Your task to perform on an android device: Search for hotels in Boston Image 0: 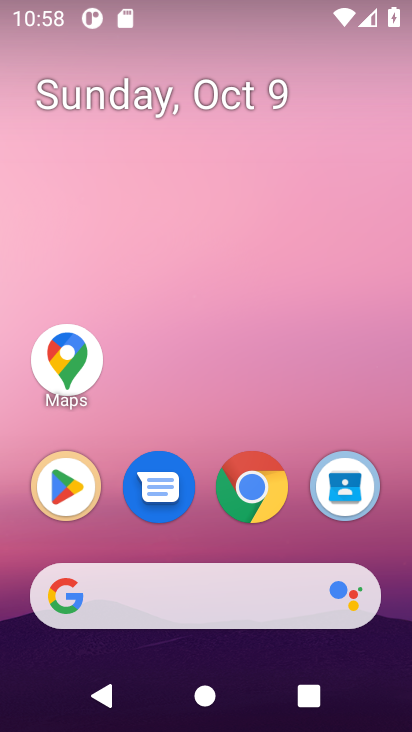
Step 0: click (270, 496)
Your task to perform on an android device: Search for hotels in Boston Image 1: 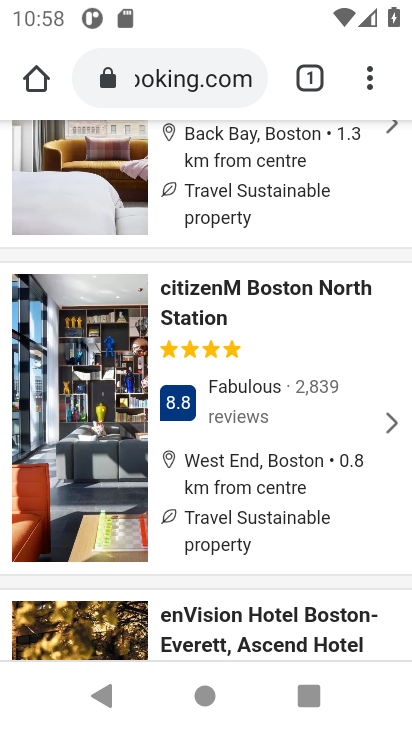
Step 1: click (204, 64)
Your task to perform on an android device: Search for hotels in Boston Image 2: 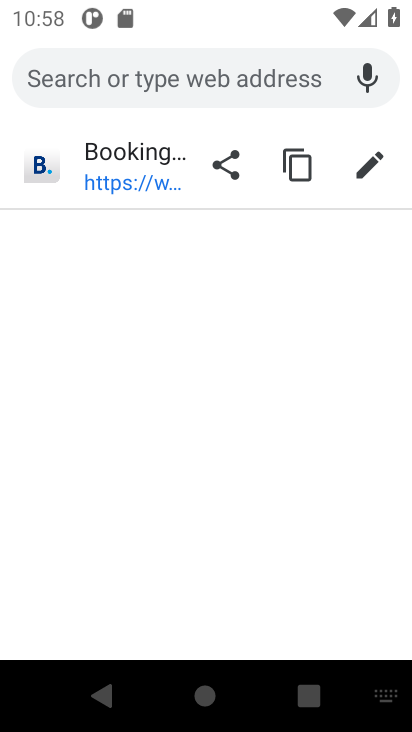
Step 2: type "hotels in boston"
Your task to perform on an android device: Search for hotels in Boston Image 3: 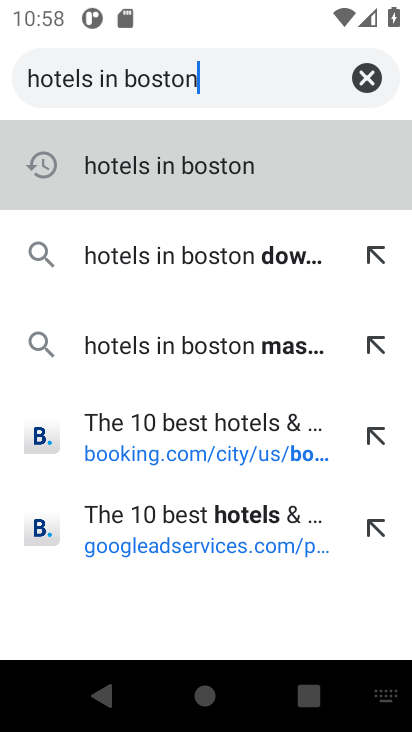
Step 3: type ""
Your task to perform on an android device: Search for hotels in Boston Image 4: 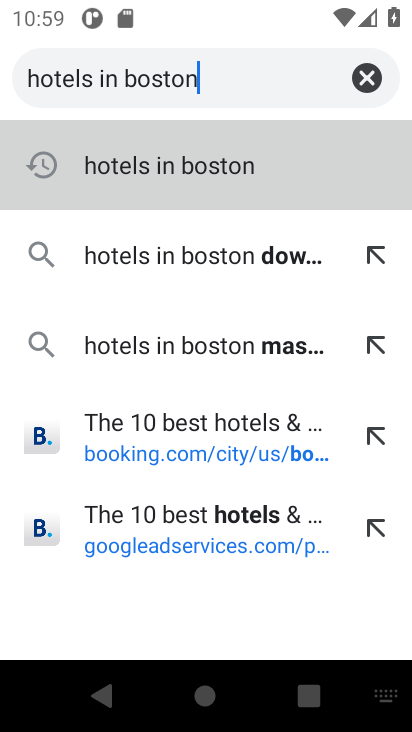
Step 4: press enter
Your task to perform on an android device: Search for hotels in Boston Image 5: 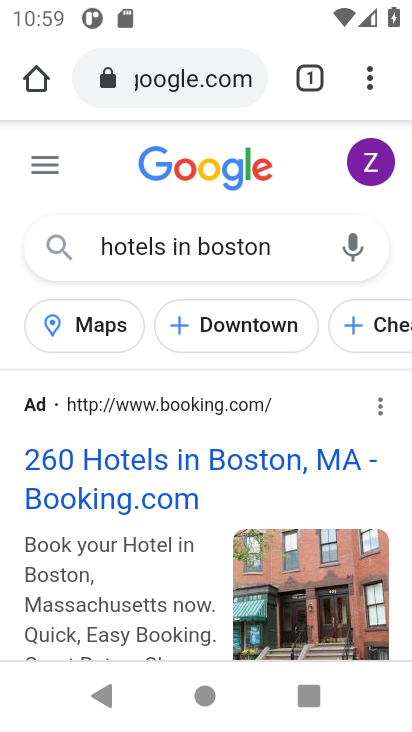
Step 5: drag from (180, 605) to (199, 136)
Your task to perform on an android device: Search for hotels in Boston Image 6: 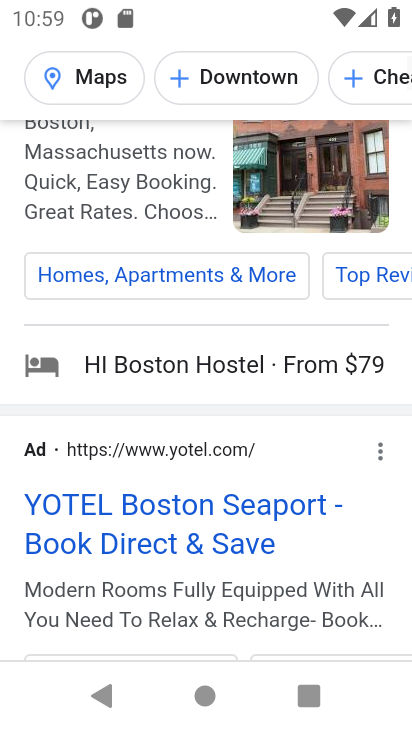
Step 6: drag from (154, 528) to (162, 123)
Your task to perform on an android device: Search for hotels in Boston Image 7: 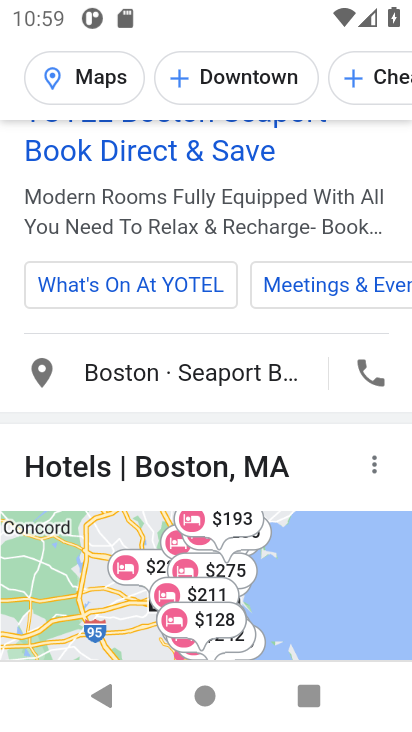
Step 7: drag from (213, 541) to (207, 149)
Your task to perform on an android device: Search for hotels in Boston Image 8: 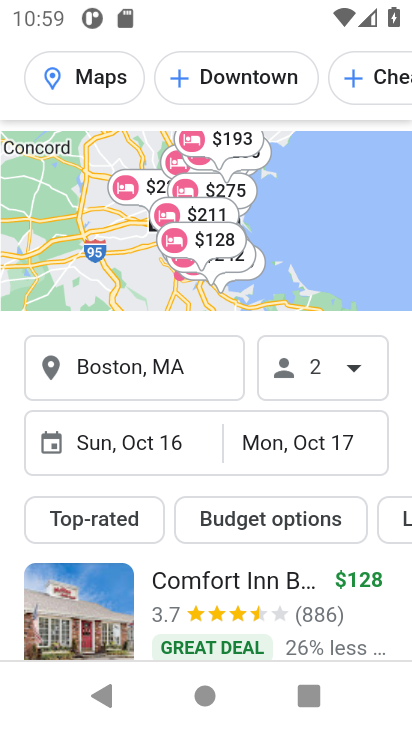
Step 8: click (246, 136)
Your task to perform on an android device: Search for hotels in Boston Image 9: 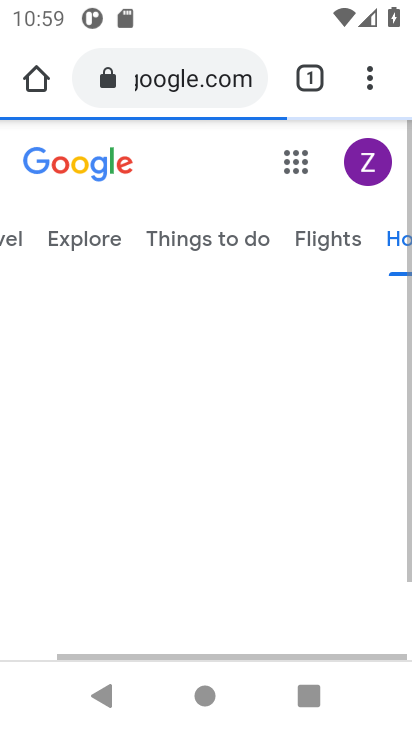
Step 9: drag from (273, 571) to (255, 205)
Your task to perform on an android device: Search for hotels in Boston Image 10: 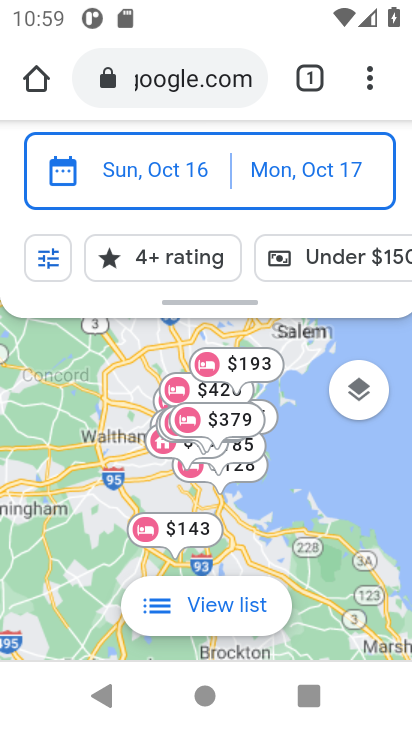
Step 10: press back button
Your task to perform on an android device: Search for hotels in Boston Image 11: 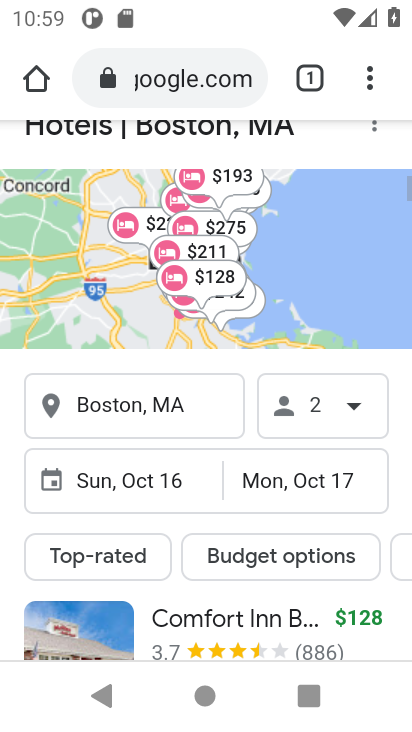
Step 11: drag from (217, 575) to (189, 278)
Your task to perform on an android device: Search for hotels in Boston Image 12: 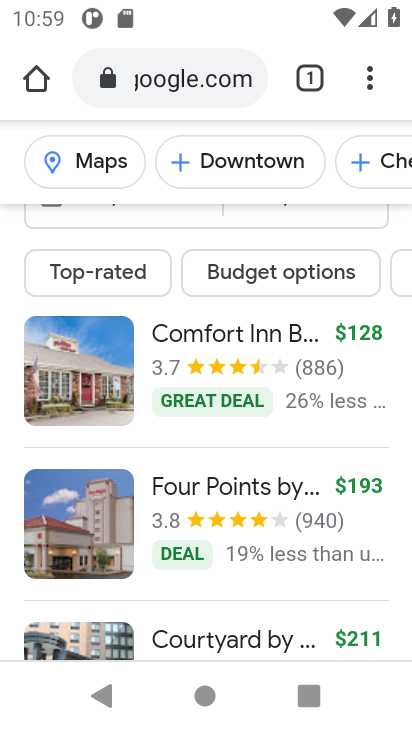
Step 12: drag from (231, 554) to (193, 227)
Your task to perform on an android device: Search for hotels in Boston Image 13: 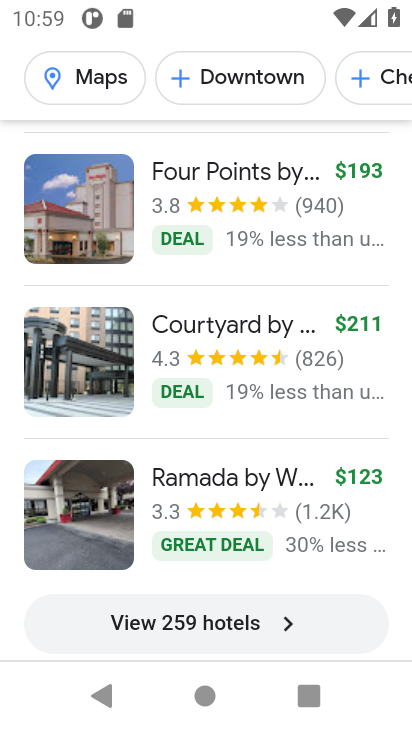
Step 13: click (214, 638)
Your task to perform on an android device: Search for hotels in Boston Image 14: 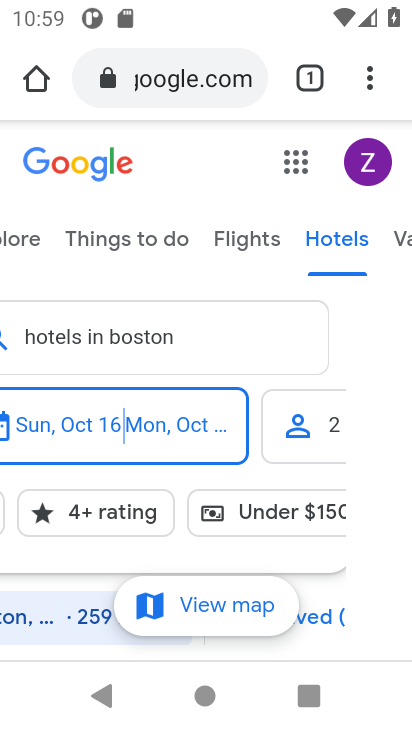
Step 14: task complete